Your task to perform on an android device: toggle sleep mode Image 0: 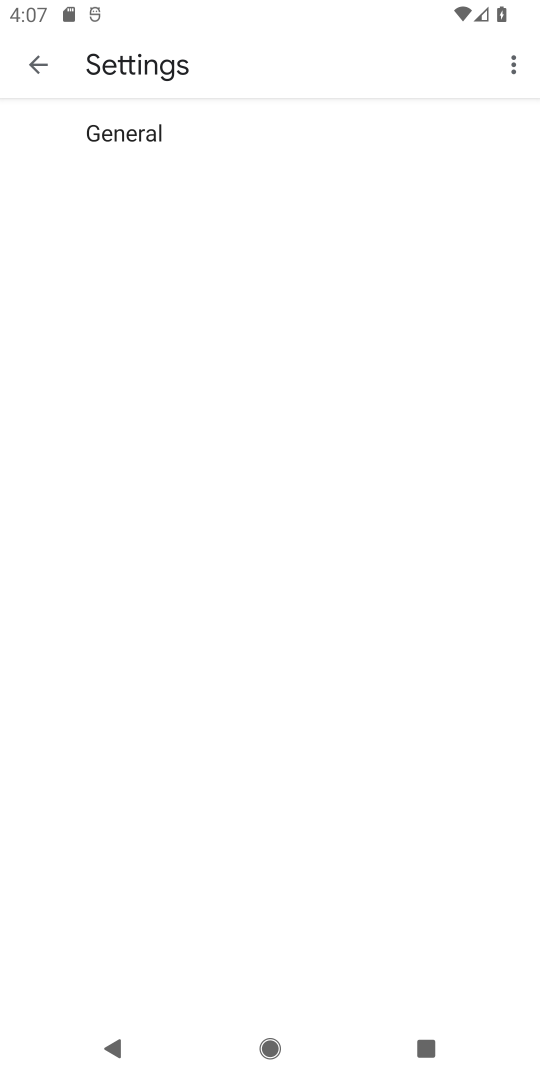
Step 0: press home button
Your task to perform on an android device: toggle sleep mode Image 1: 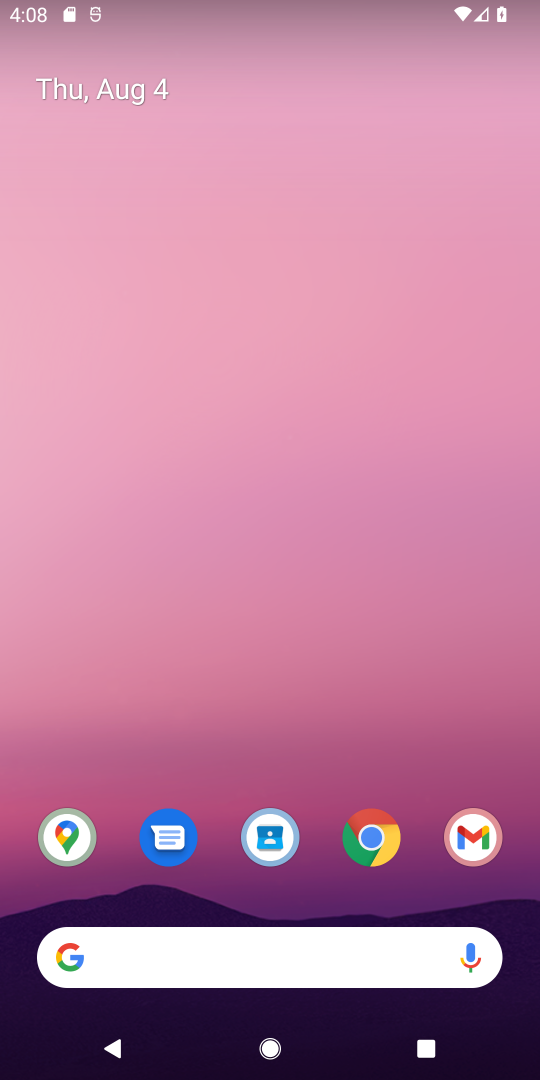
Step 1: drag from (322, 747) to (316, 4)
Your task to perform on an android device: toggle sleep mode Image 2: 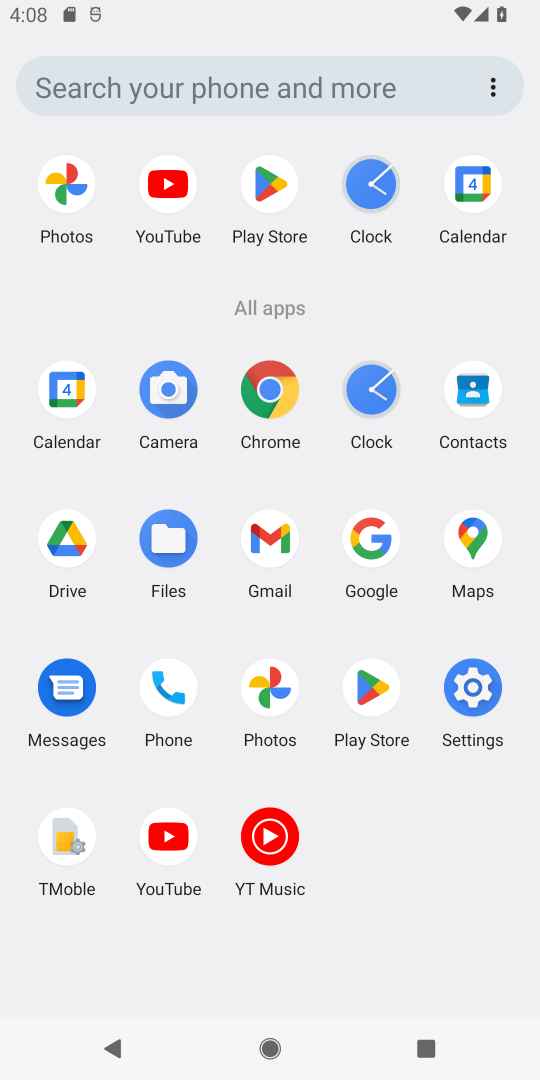
Step 2: click (471, 679)
Your task to perform on an android device: toggle sleep mode Image 3: 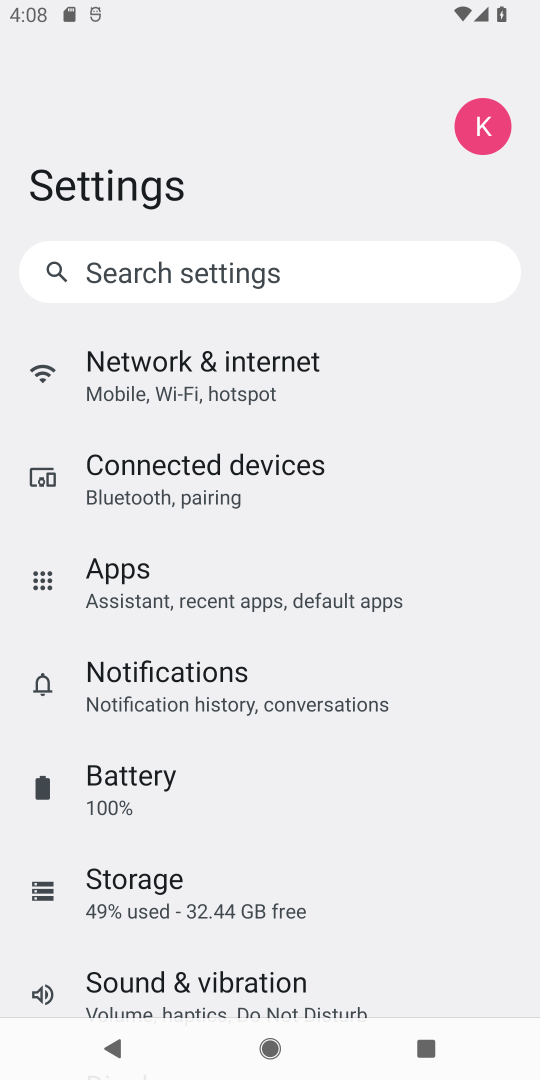
Step 3: drag from (253, 938) to (279, 295)
Your task to perform on an android device: toggle sleep mode Image 4: 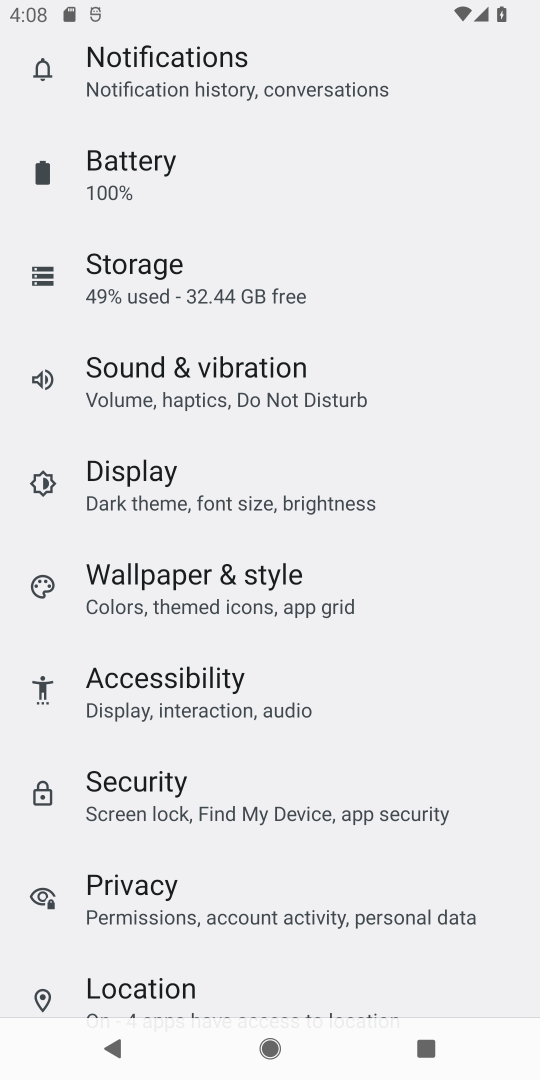
Step 4: click (193, 475)
Your task to perform on an android device: toggle sleep mode Image 5: 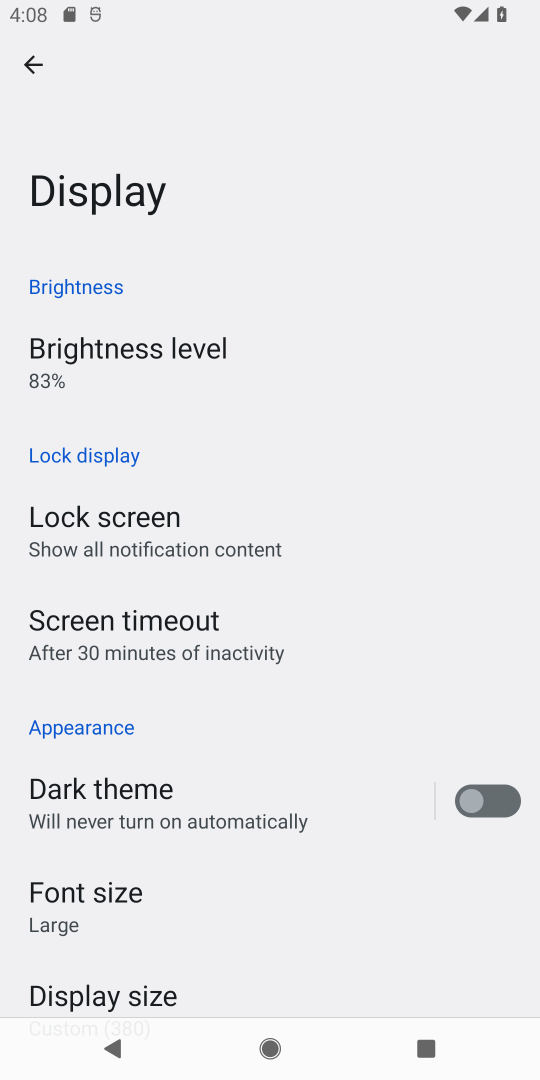
Step 5: task complete